Your task to perform on an android device: Open wifi settings Image 0: 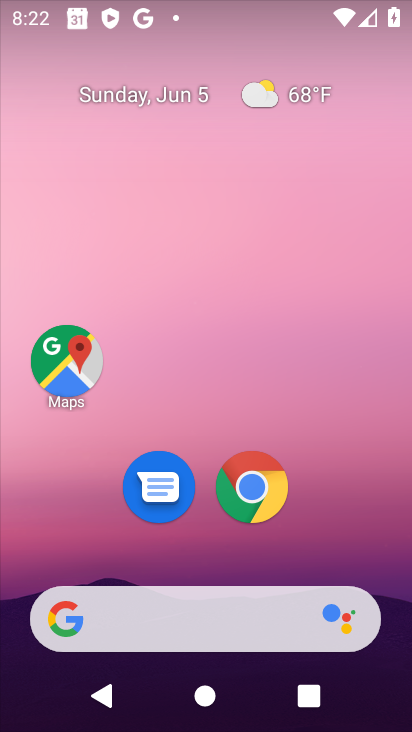
Step 0: drag from (129, 13) to (172, 465)
Your task to perform on an android device: Open wifi settings Image 1: 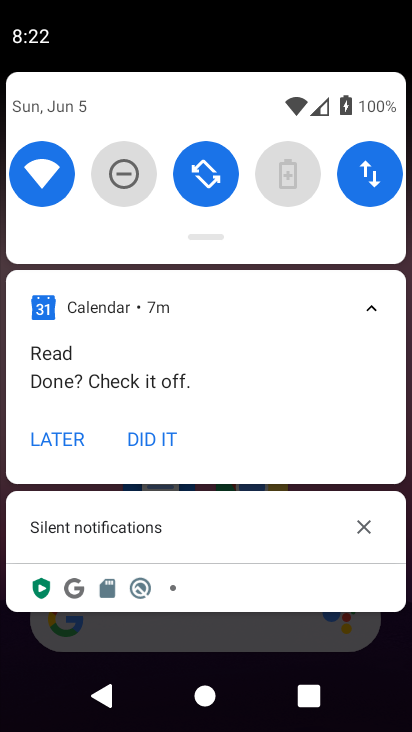
Step 1: click (45, 176)
Your task to perform on an android device: Open wifi settings Image 2: 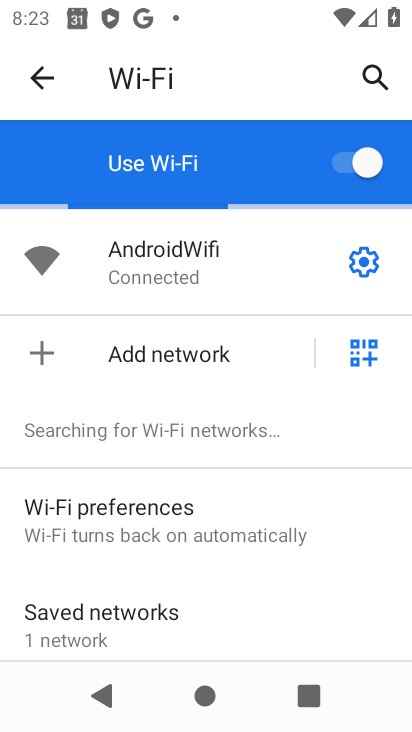
Step 2: task complete